Your task to perform on an android device: change notifications settings Image 0: 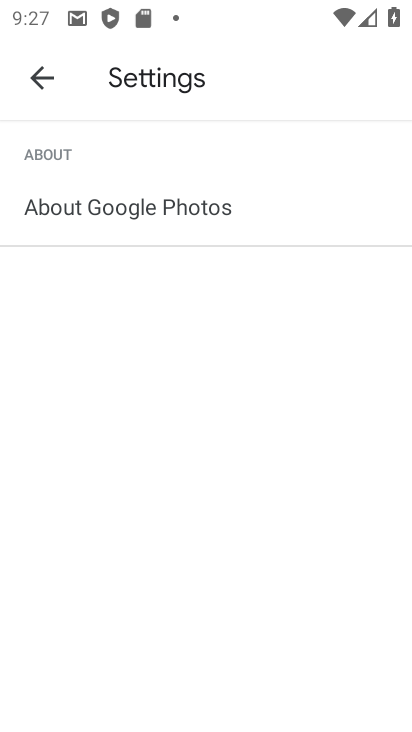
Step 0: press home button
Your task to perform on an android device: change notifications settings Image 1: 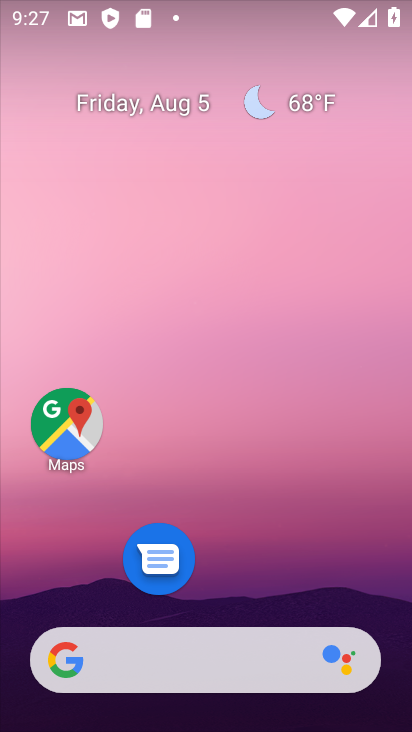
Step 1: drag from (221, 648) to (197, 254)
Your task to perform on an android device: change notifications settings Image 2: 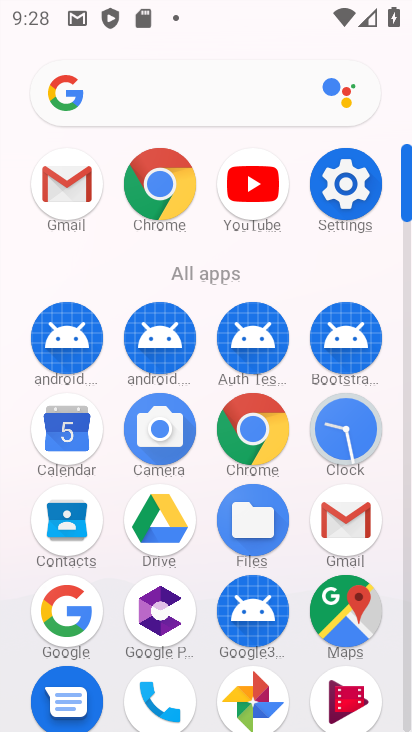
Step 2: click (331, 196)
Your task to perform on an android device: change notifications settings Image 3: 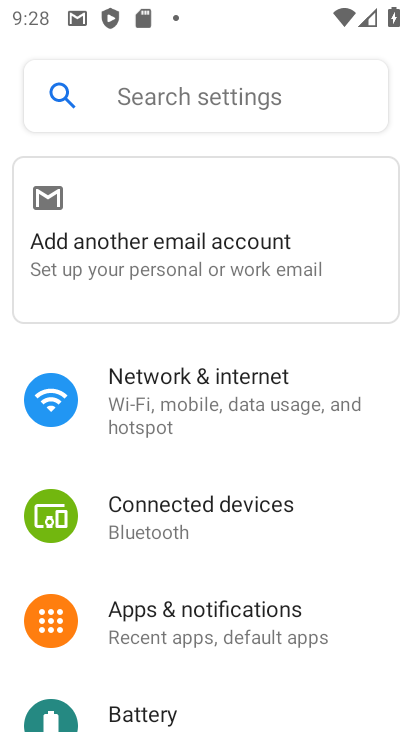
Step 3: click (217, 627)
Your task to perform on an android device: change notifications settings Image 4: 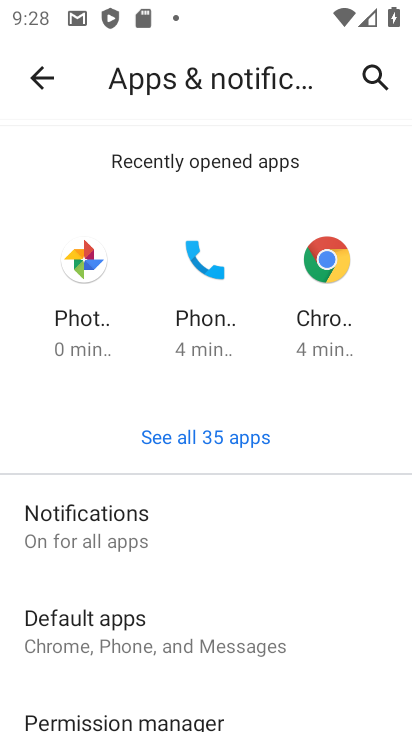
Step 4: click (142, 520)
Your task to perform on an android device: change notifications settings Image 5: 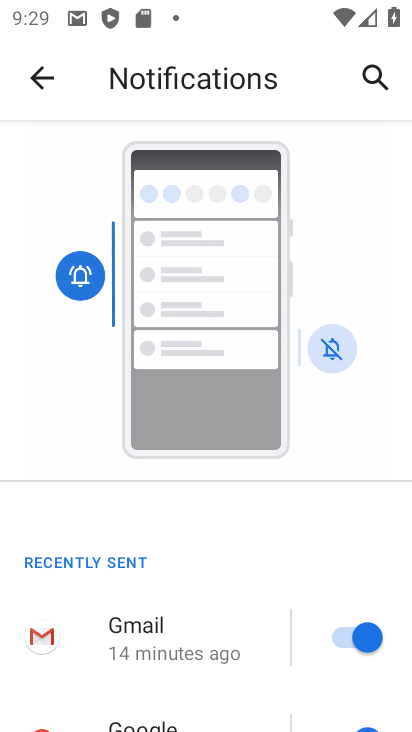
Step 5: drag from (142, 601) to (150, 371)
Your task to perform on an android device: change notifications settings Image 6: 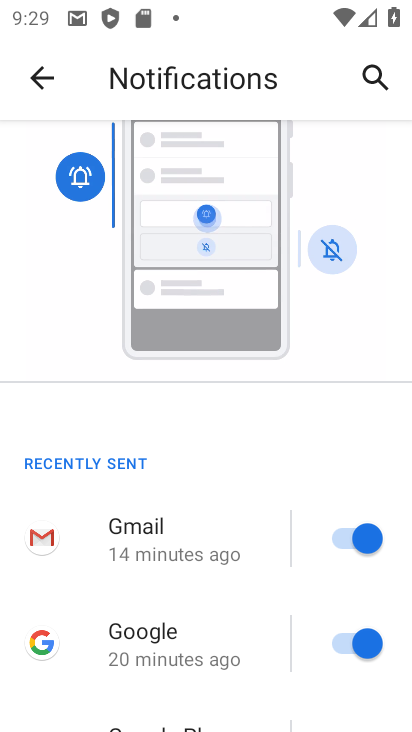
Step 6: click (337, 527)
Your task to perform on an android device: change notifications settings Image 7: 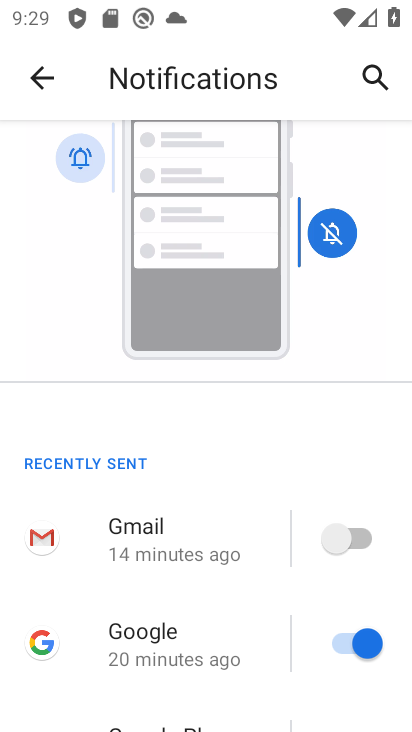
Step 7: task complete